Your task to perform on an android device: read, delete, or share a saved page in the chrome app Image 0: 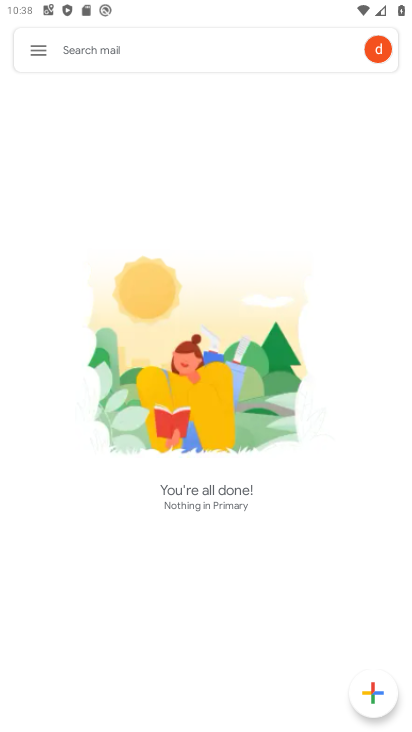
Step 0: press home button
Your task to perform on an android device: read, delete, or share a saved page in the chrome app Image 1: 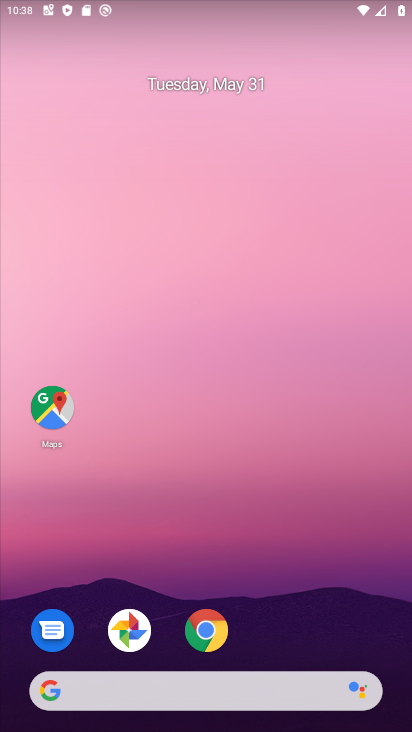
Step 1: drag from (255, 540) to (242, 253)
Your task to perform on an android device: read, delete, or share a saved page in the chrome app Image 2: 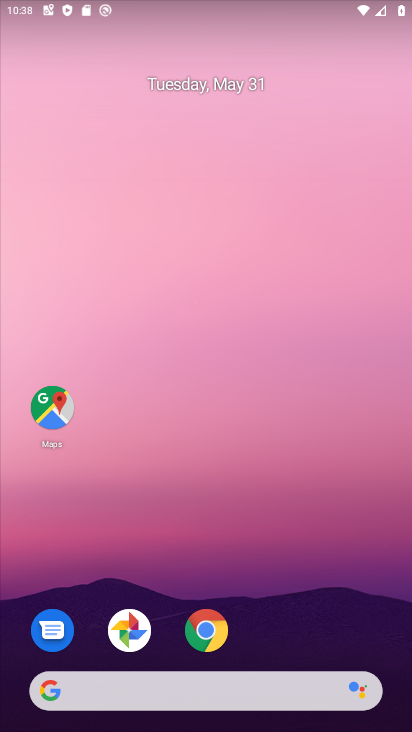
Step 2: drag from (269, 604) to (267, 160)
Your task to perform on an android device: read, delete, or share a saved page in the chrome app Image 3: 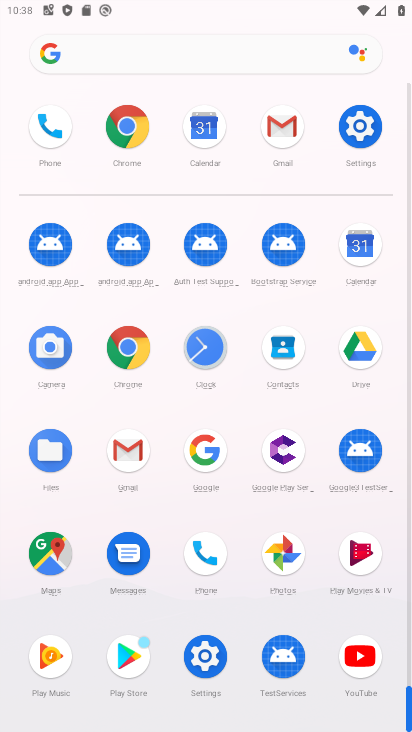
Step 3: click (131, 336)
Your task to perform on an android device: read, delete, or share a saved page in the chrome app Image 4: 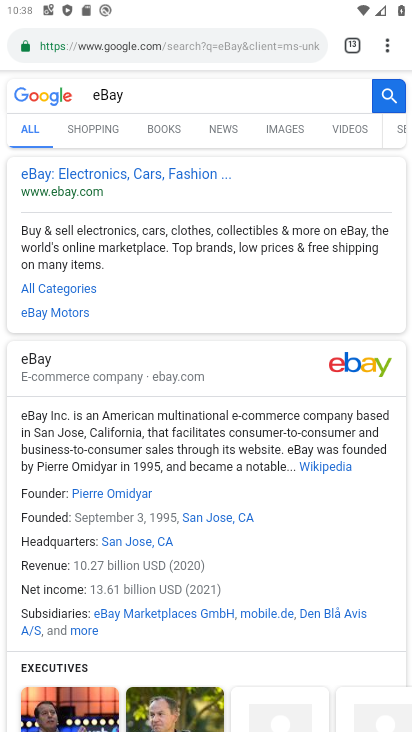
Step 4: click (390, 42)
Your task to perform on an android device: read, delete, or share a saved page in the chrome app Image 5: 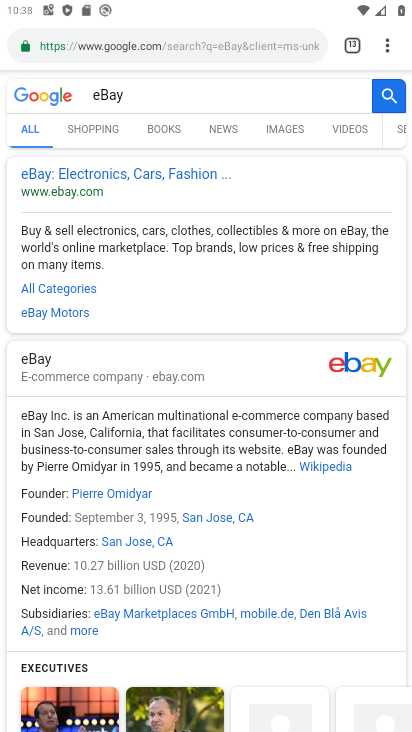
Step 5: click (387, 42)
Your task to perform on an android device: read, delete, or share a saved page in the chrome app Image 6: 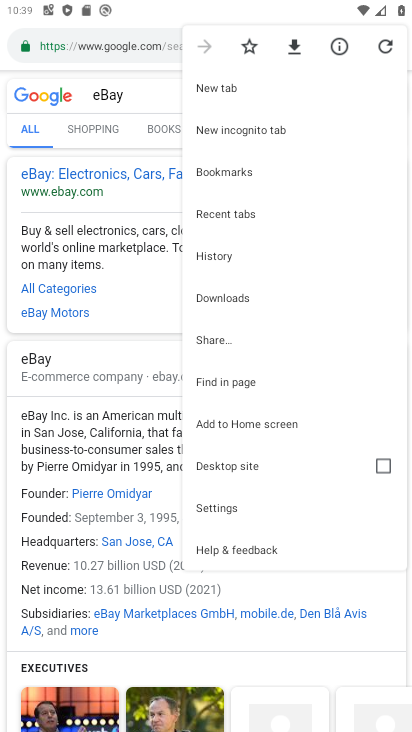
Step 6: click (244, 295)
Your task to perform on an android device: read, delete, or share a saved page in the chrome app Image 7: 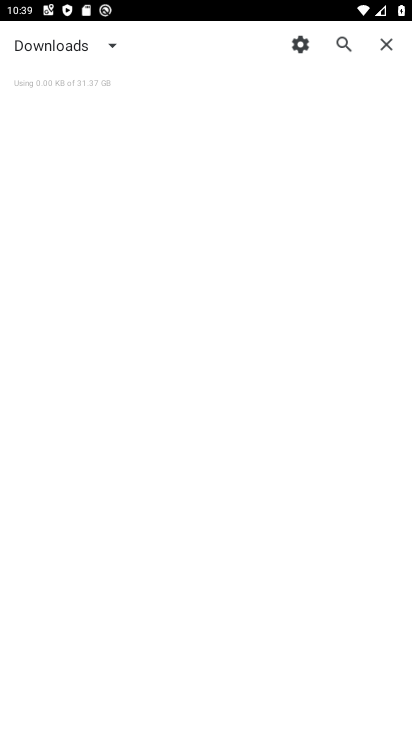
Step 7: click (113, 49)
Your task to perform on an android device: read, delete, or share a saved page in the chrome app Image 8: 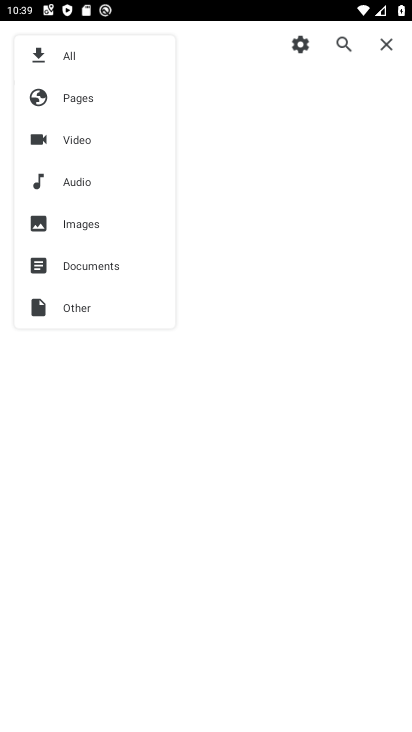
Step 8: click (91, 94)
Your task to perform on an android device: read, delete, or share a saved page in the chrome app Image 9: 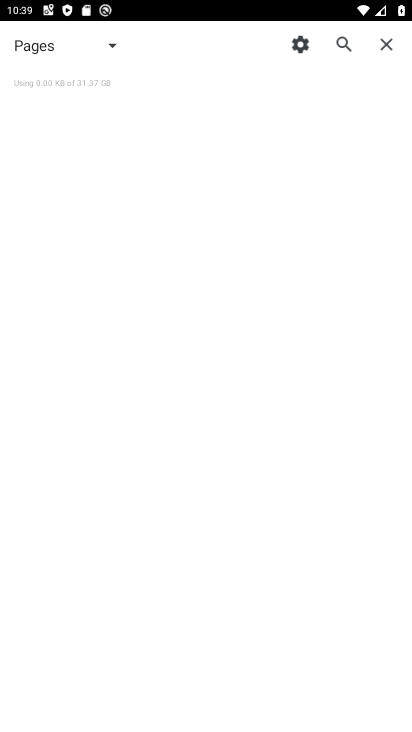
Step 9: task complete